Your task to perform on an android device: When is my next meeting? Image 0: 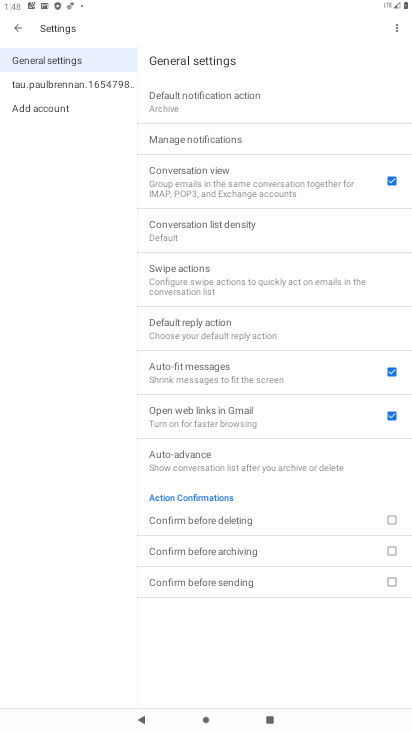
Step 0: press home button
Your task to perform on an android device: When is my next meeting? Image 1: 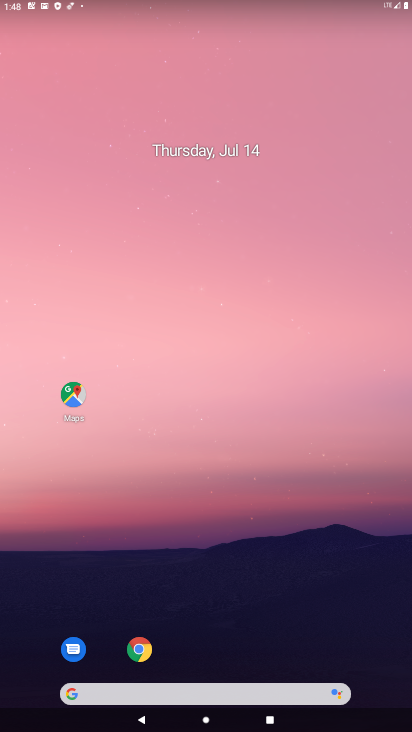
Step 1: drag from (374, 669) to (196, 83)
Your task to perform on an android device: When is my next meeting? Image 2: 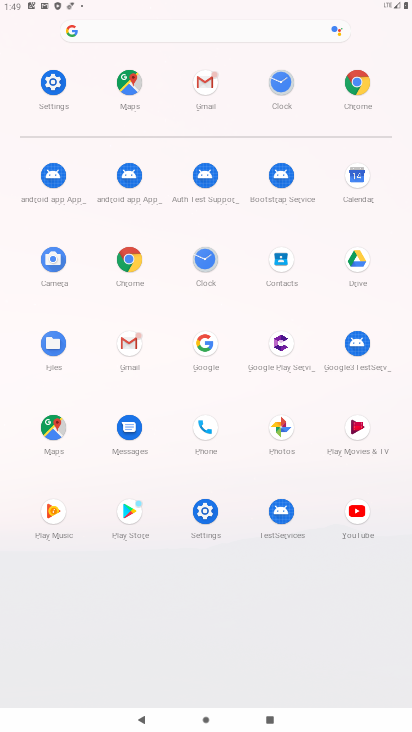
Step 2: click (355, 182)
Your task to perform on an android device: When is my next meeting? Image 3: 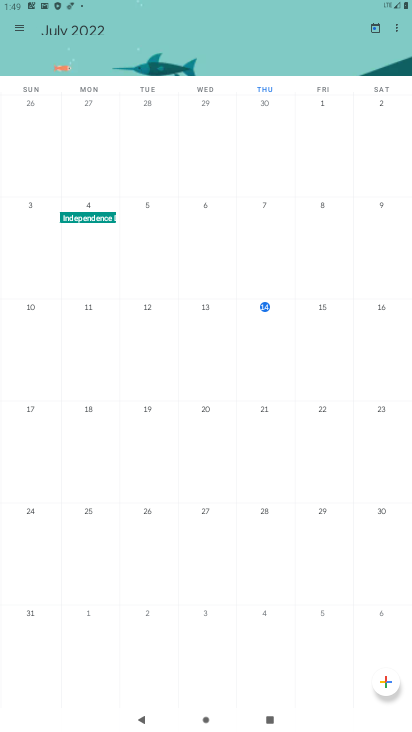
Step 3: task complete